Your task to perform on an android device: Open internet settings Image 0: 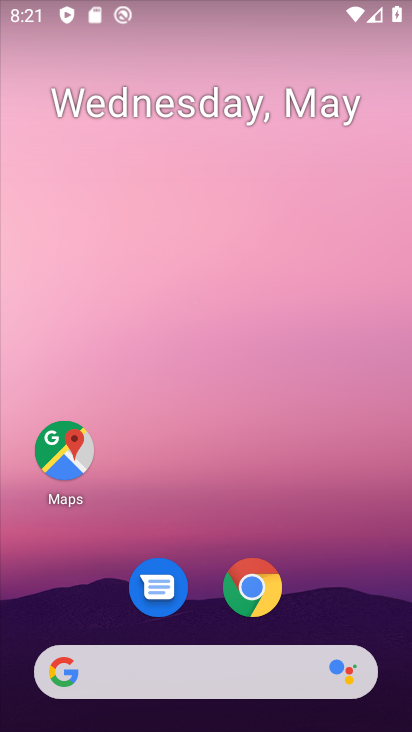
Step 0: drag from (197, 569) to (250, 166)
Your task to perform on an android device: Open internet settings Image 1: 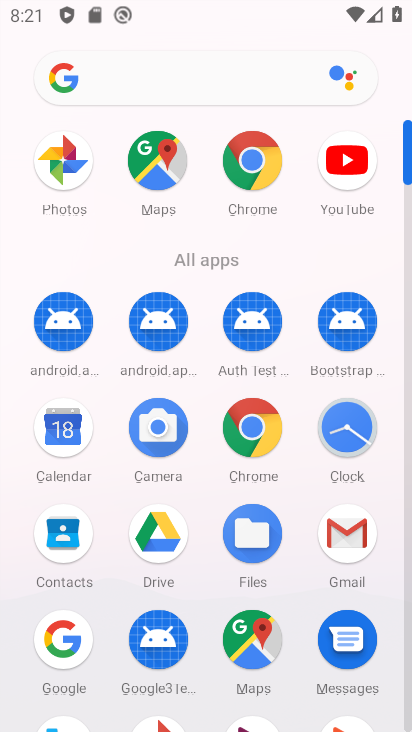
Step 1: drag from (216, 591) to (232, 395)
Your task to perform on an android device: Open internet settings Image 2: 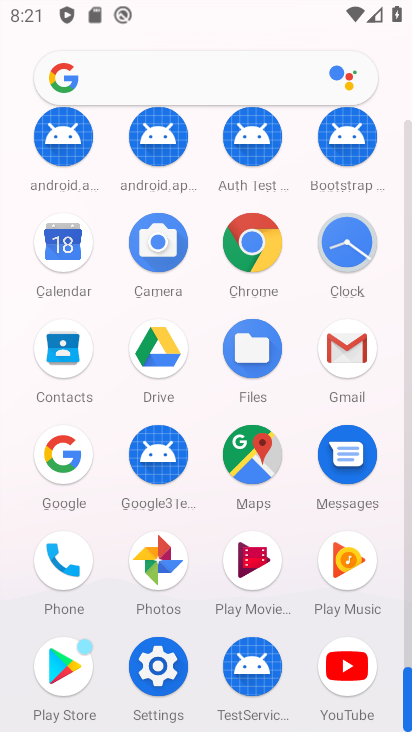
Step 2: click (159, 677)
Your task to perform on an android device: Open internet settings Image 3: 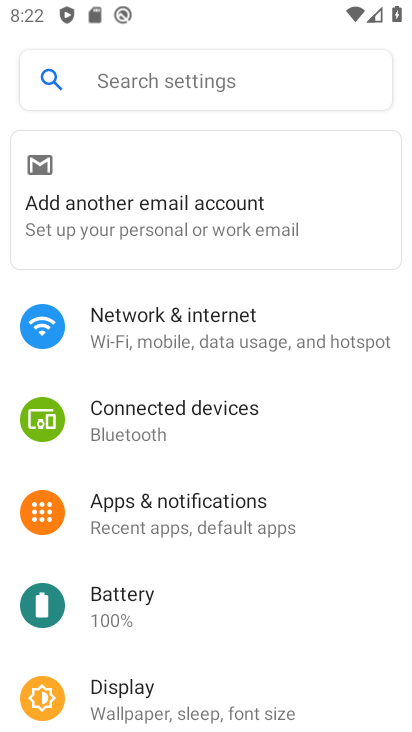
Step 3: click (188, 331)
Your task to perform on an android device: Open internet settings Image 4: 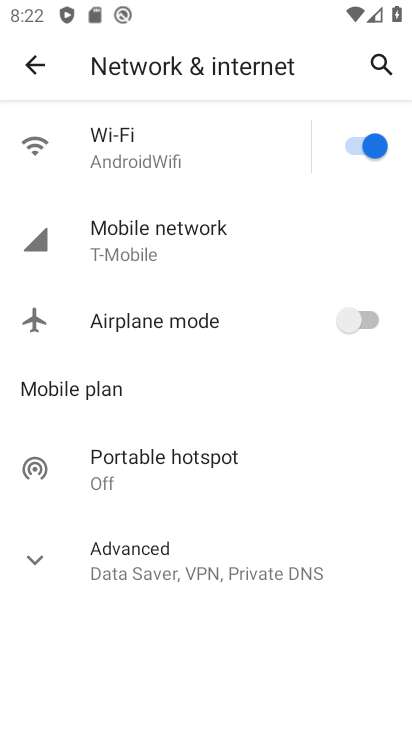
Step 4: task complete